Your task to perform on an android device: Go to Google Image 0: 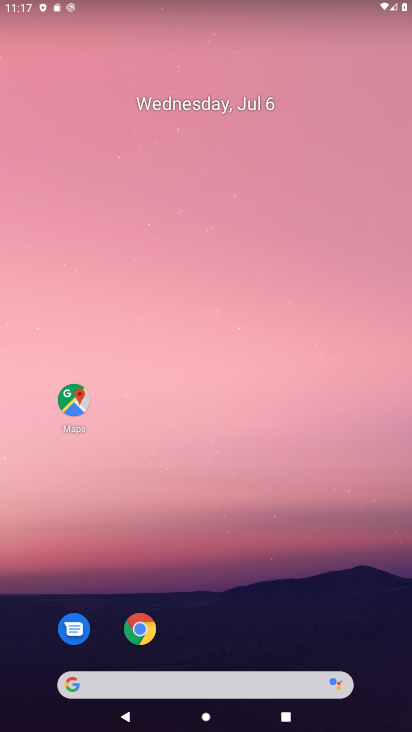
Step 0: drag from (378, 635) to (367, 127)
Your task to perform on an android device: Go to Google Image 1: 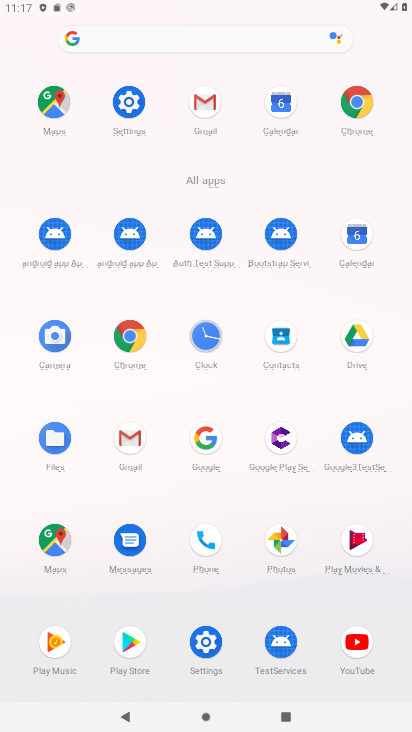
Step 1: click (212, 435)
Your task to perform on an android device: Go to Google Image 2: 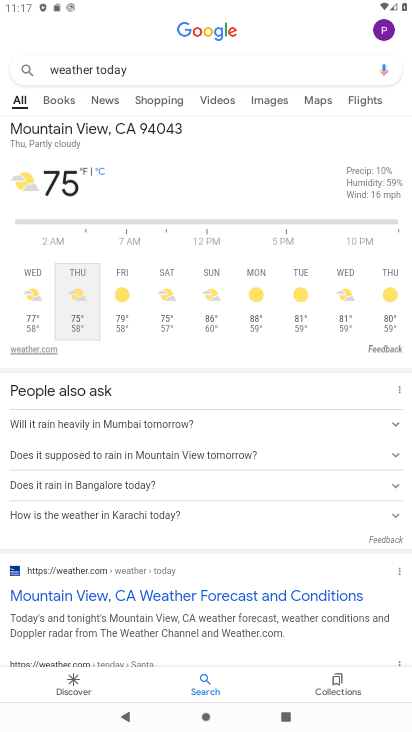
Step 2: task complete